Your task to perform on an android device: Open Yahoo.com Image 0: 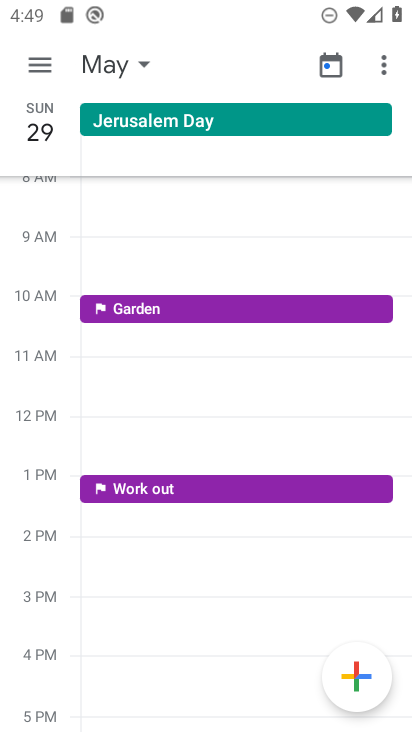
Step 0: press home button
Your task to perform on an android device: Open Yahoo.com Image 1: 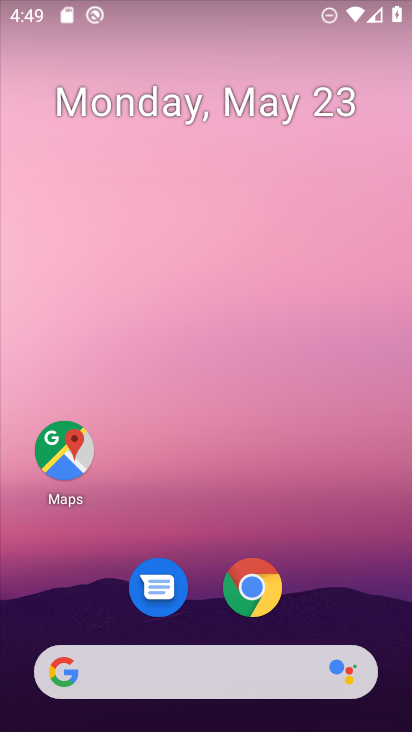
Step 1: drag from (198, 565) to (228, 0)
Your task to perform on an android device: Open Yahoo.com Image 2: 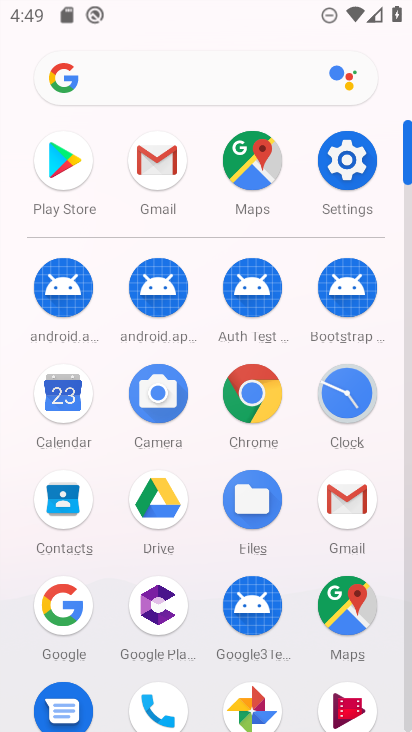
Step 2: click (241, 414)
Your task to perform on an android device: Open Yahoo.com Image 3: 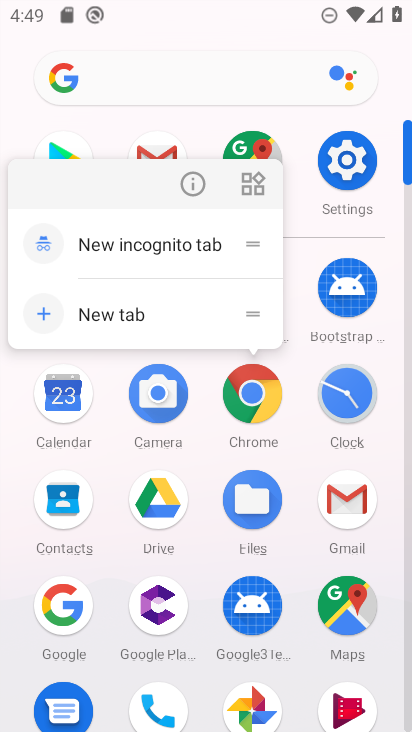
Step 3: click (267, 406)
Your task to perform on an android device: Open Yahoo.com Image 4: 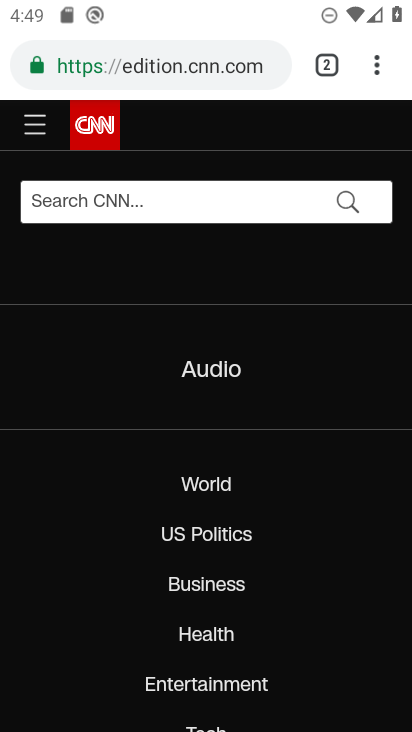
Step 4: click (201, 65)
Your task to perform on an android device: Open Yahoo.com Image 5: 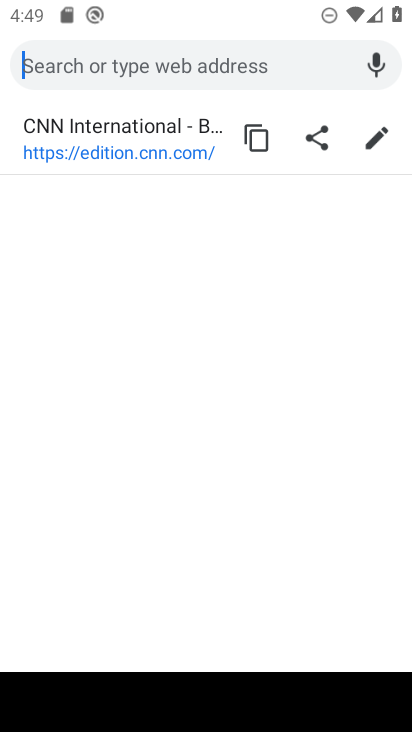
Step 5: type "Yahoo.com"
Your task to perform on an android device: Open Yahoo.com Image 6: 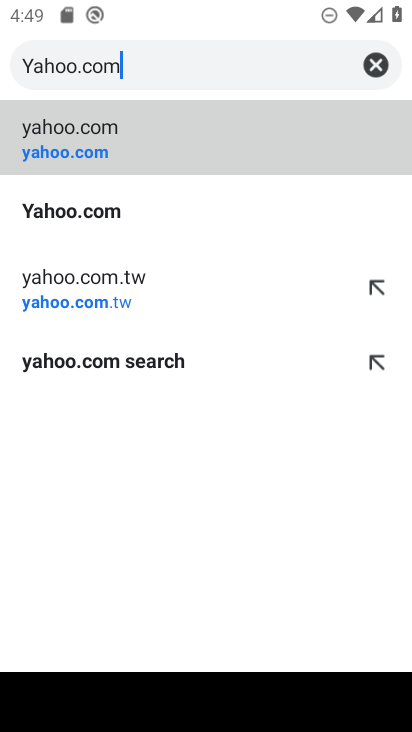
Step 6: click (93, 158)
Your task to perform on an android device: Open Yahoo.com Image 7: 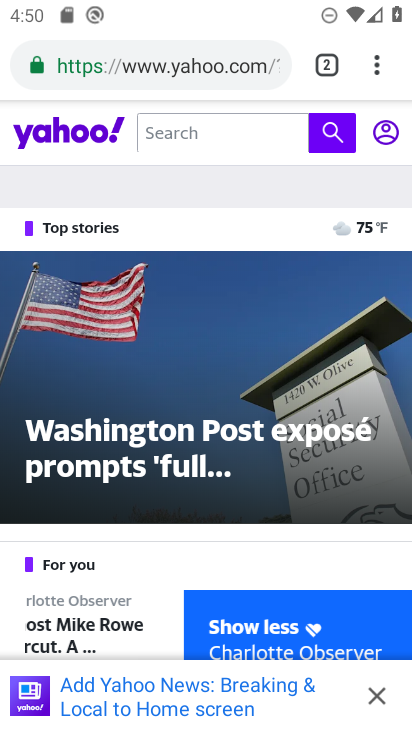
Step 7: task complete